Your task to perform on an android device: Open settings on Google Maps Image 0: 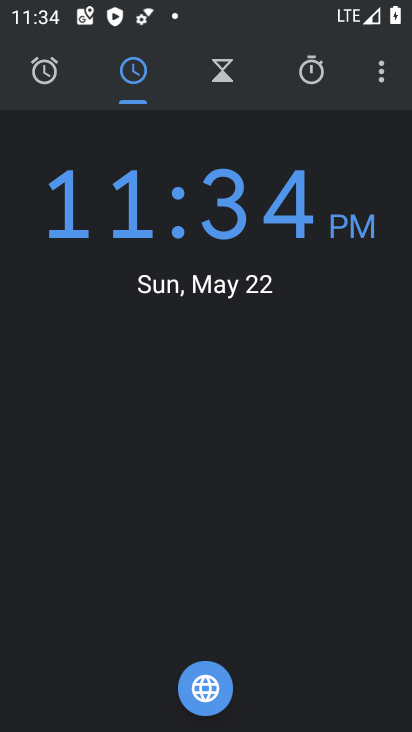
Step 0: press home button
Your task to perform on an android device: Open settings on Google Maps Image 1: 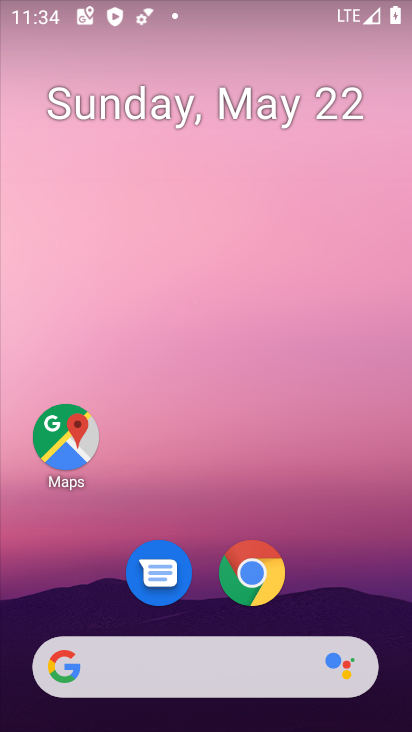
Step 1: click (59, 449)
Your task to perform on an android device: Open settings on Google Maps Image 2: 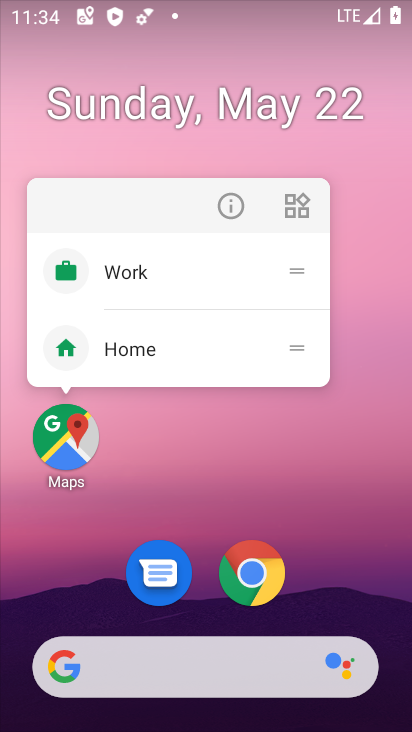
Step 2: click (51, 447)
Your task to perform on an android device: Open settings on Google Maps Image 3: 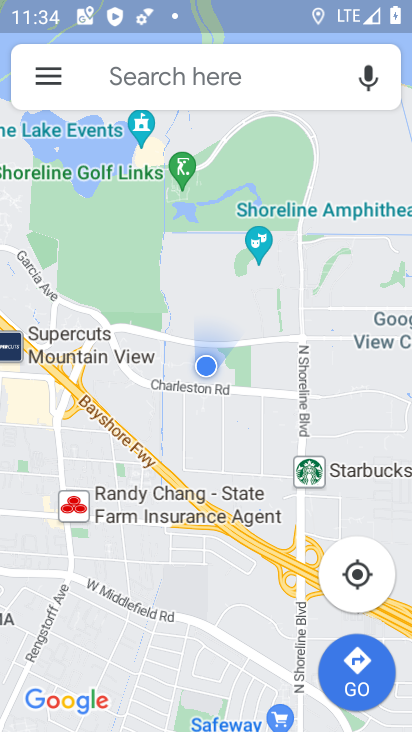
Step 3: click (46, 72)
Your task to perform on an android device: Open settings on Google Maps Image 4: 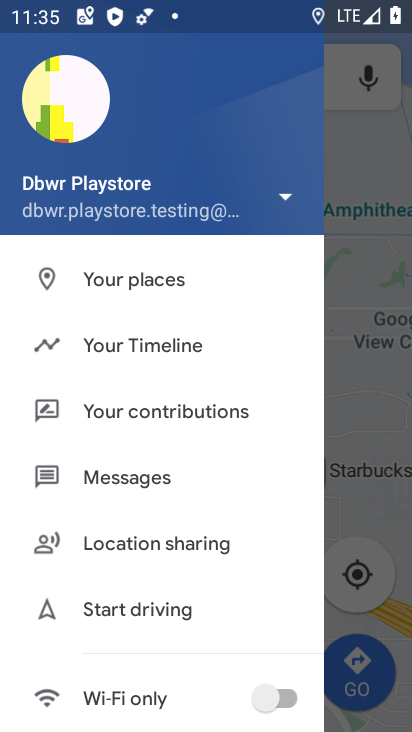
Step 4: drag from (169, 659) to (169, 319)
Your task to perform on an android device: Open settings on Google Maps Image 5: 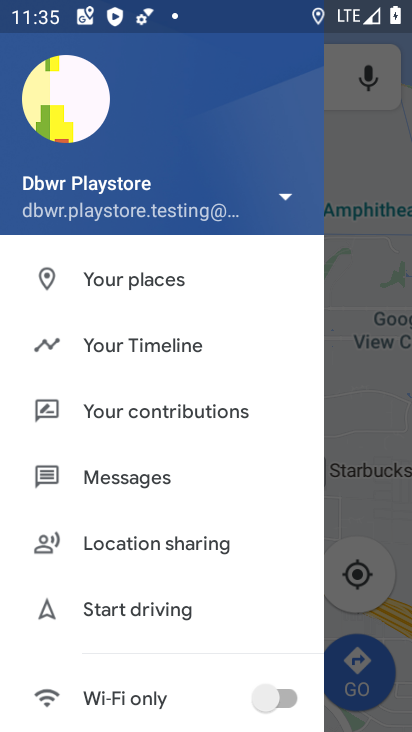
Step 5: drag from (184, 651) to (194, 268)
Your task to perform on an android device: Open settings on Google Maps Image 6: 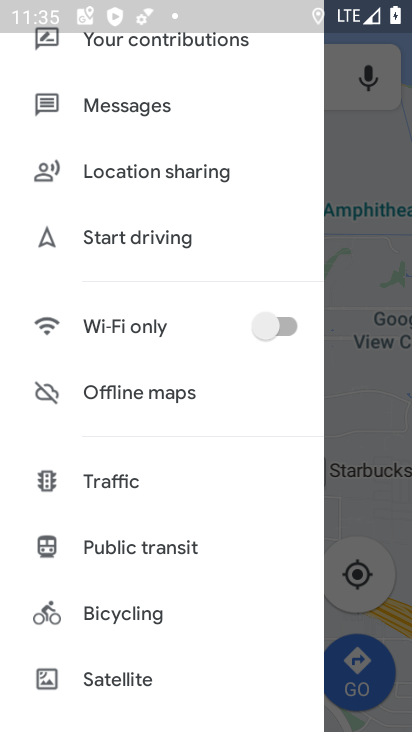
Step 6: drag from (104, 700) to (131, 276)
Your task to perform on an android device: Open settings on Google Maps Image 7: 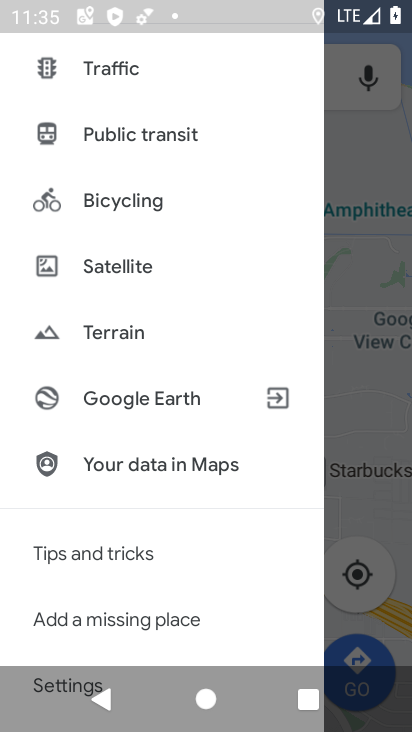
Step 7: drag from (99, 660) to (144, 413)
Your task to perform on an android device: Open settings on Google Maps Image 8: 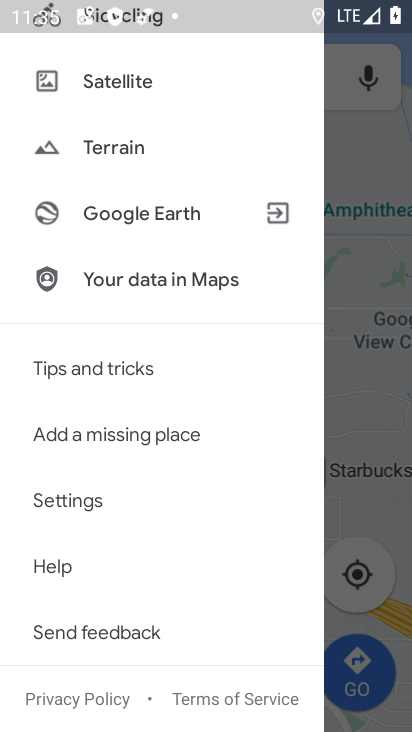
Step 8: click (59, 508)
Your task to perform on an android device: Open settings on Google Maps Image 9: 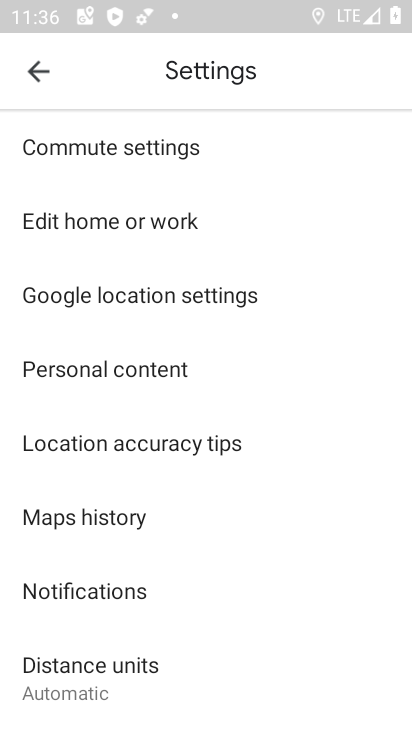
Step 9: task complete